Your task to perform on an android device: turn on notifications settings in the gmail app Image 0: 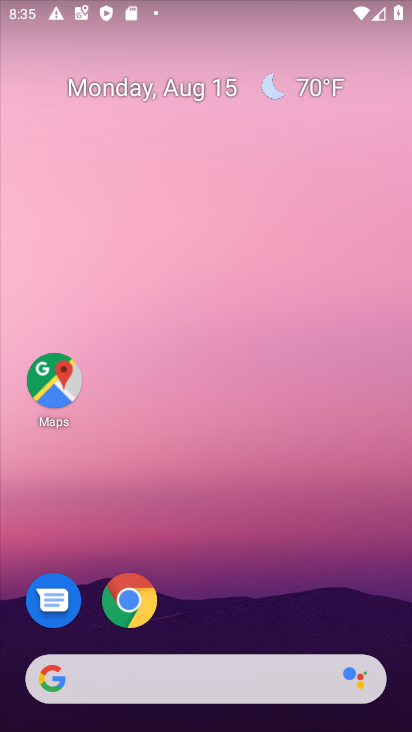
Step 0: drag from (228, 638) to (222, 85)
Your task to perform on an android device: turn on notifications settings in the gmail app Image 1: 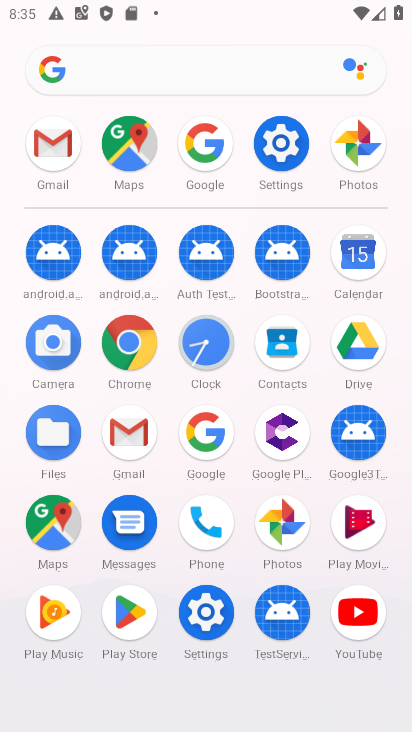
Step 1: click (127, 433)
Your task to perform on an android device: turn on notifications settings in the gmail app Image 2: 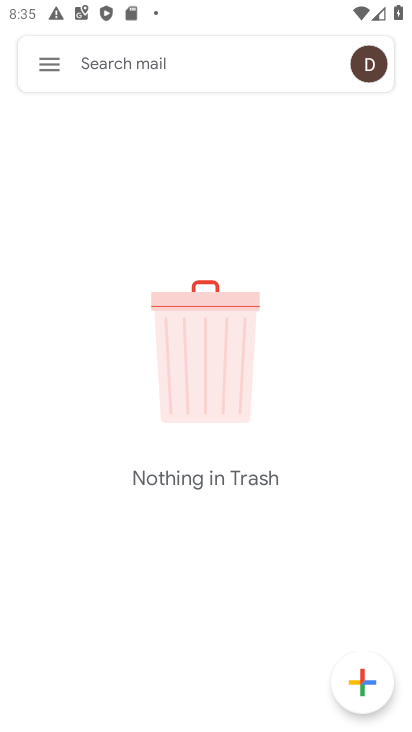
Step 2: press home button
Your task to perform on an android device: turn on notifications settings in the gmail app Image 3: 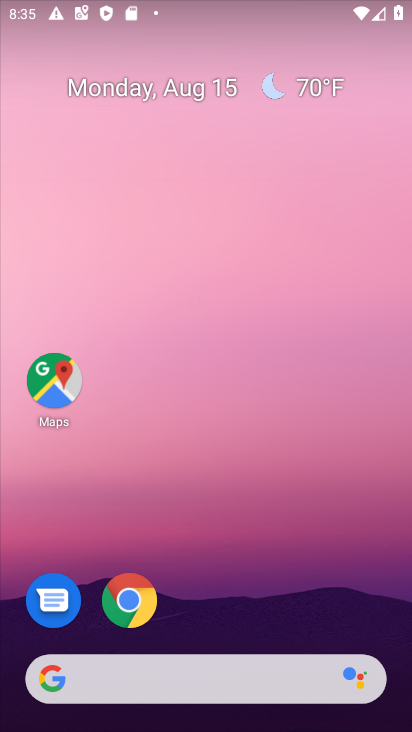
Step 3: drag from (244, 630) to (275, 139)
Your task to perform on an android device: turn on notifications settings in the gmail app Image 4: 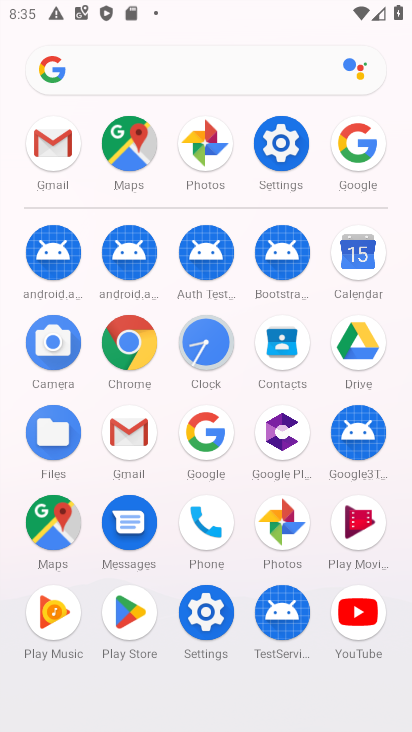
Step 4: click (137, 434)
Your task to perform on an android device: turn on notifications settings in the gmail app Image 5: 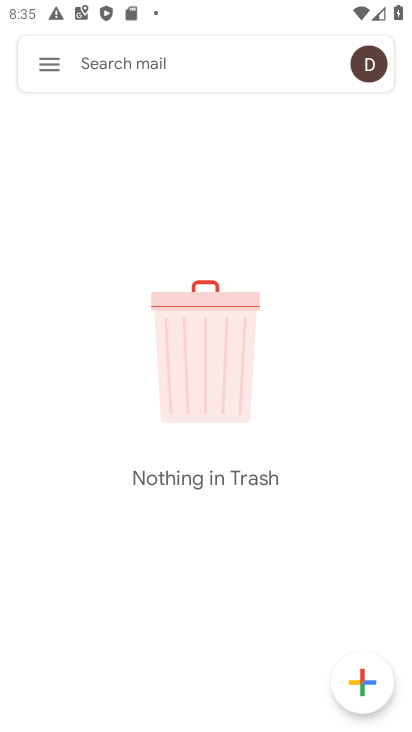
Step 5: click (37, 59)
Your task to perform on an android device: turn on notifications settings in the gmail app Image 6: 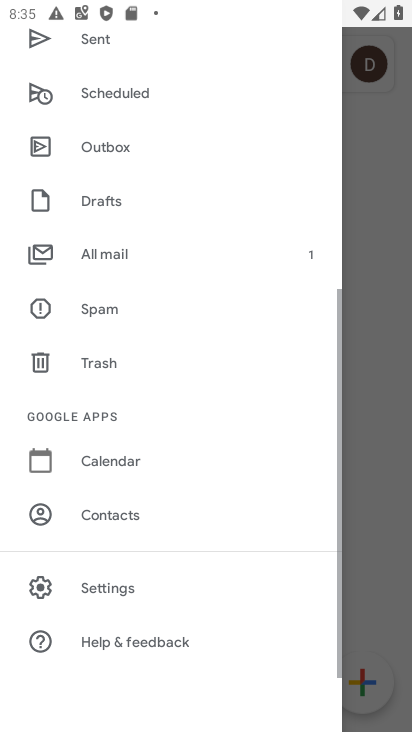
Step 6: click (95, 577)
Your task to perform on an android device: turn on notifications settings in the gmail app Image 7: 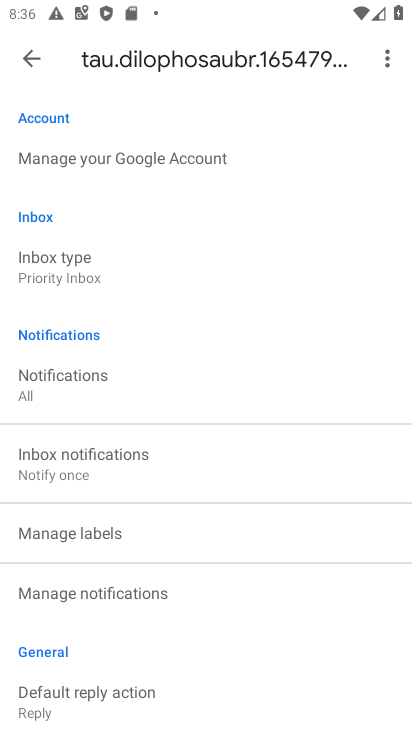
Step 7: task complete